Your task to perform on an android device: Open the web browser Image 0: 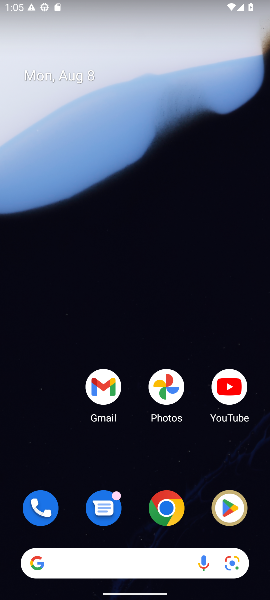
Step 0: click (162, 508)
Your task to perform on an android device: Open the web browser Image 1: 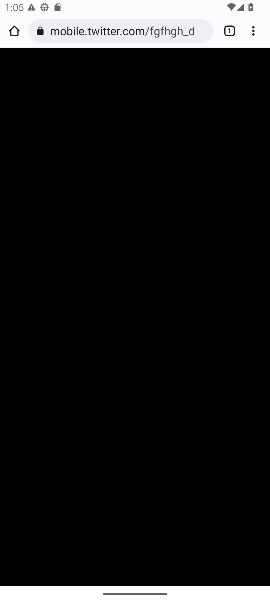
Step 1: task complete